Your task to perform on an android device: Open the stopwatch Image 0: 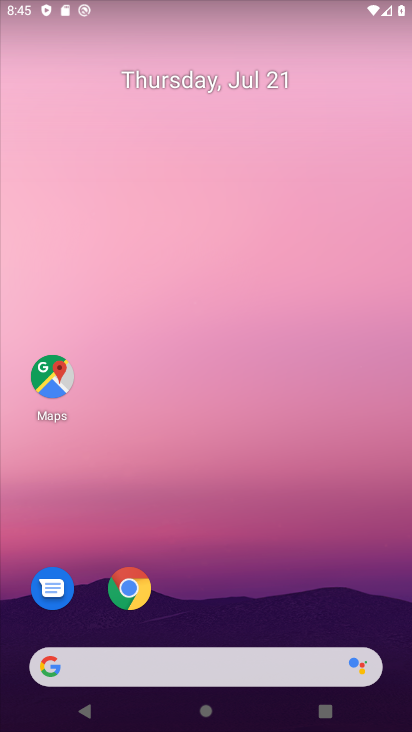
Step 0: drag from (270, 679) to (231, 184)
Your task to perform on an android device: Open the stopwatch Image 1: 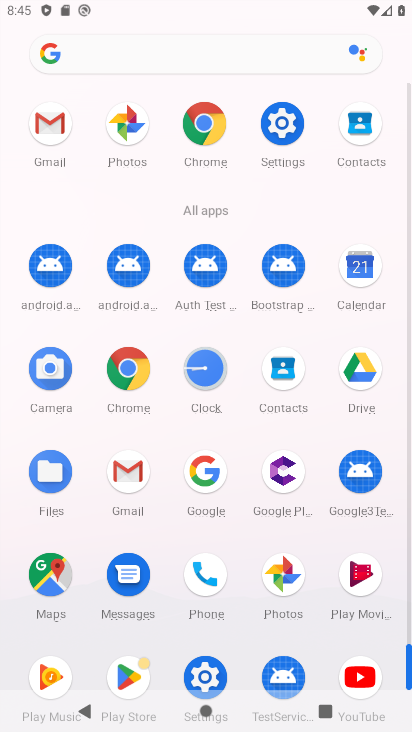
Step 1: click (197, 376)
Your task to perform on an android device: Open the stopwatch Image 2: 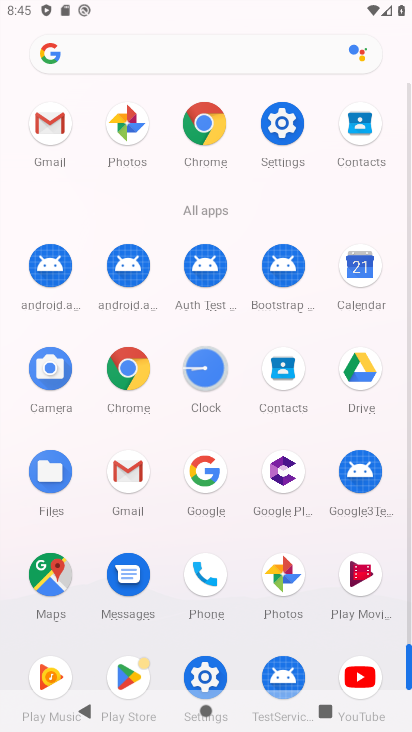
Step 2: click (209, 368)
Your task to perform on an android device: Open the stopwatch Image 3: 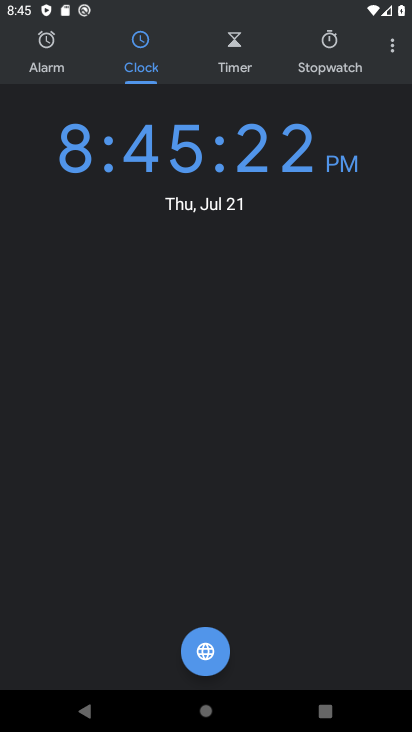
Step 3: click (324, 50)
Your task to perform on an android device: Open the stopwatch Image 4: 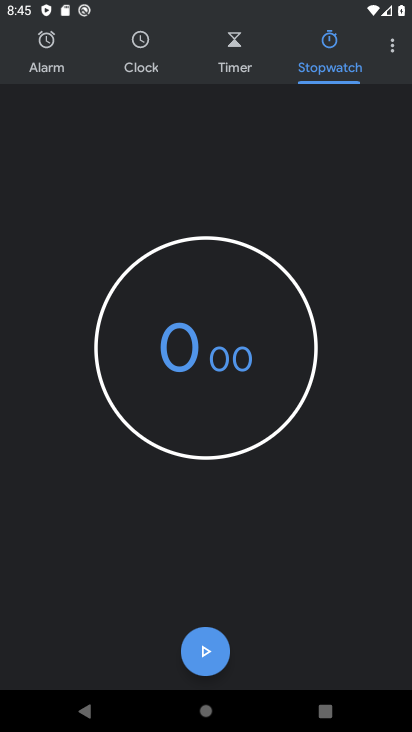
Step 4: click (211, 645)
Your task to perform on an android device: Open the stopwatch Image 5: 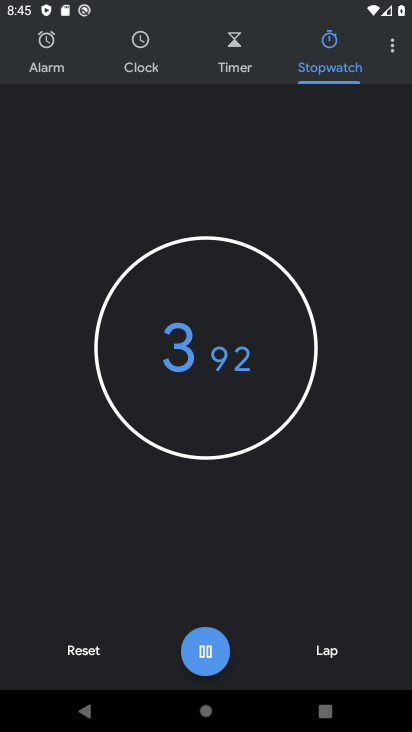
Step 5: click (190, 645)
Your task to perform on an android device: Open the stopwatch Image 6: 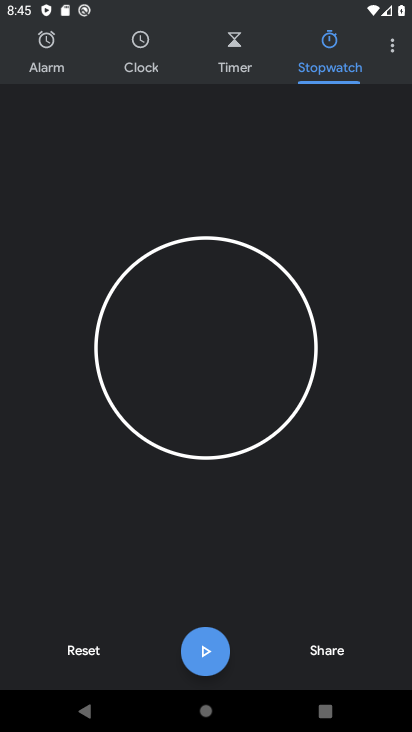
Step 6: task complete